Your task to perform on an android device: Open Yahoo.com Image 0: 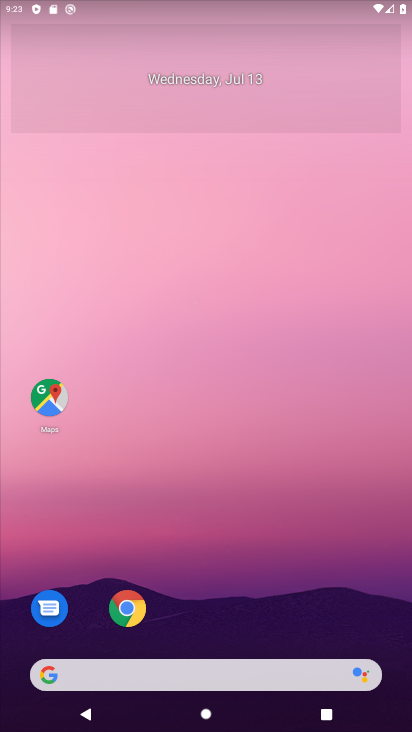
Step 0: click (149, 669)
Your task to perform on an android device: Open Yahoo.com Image 1: 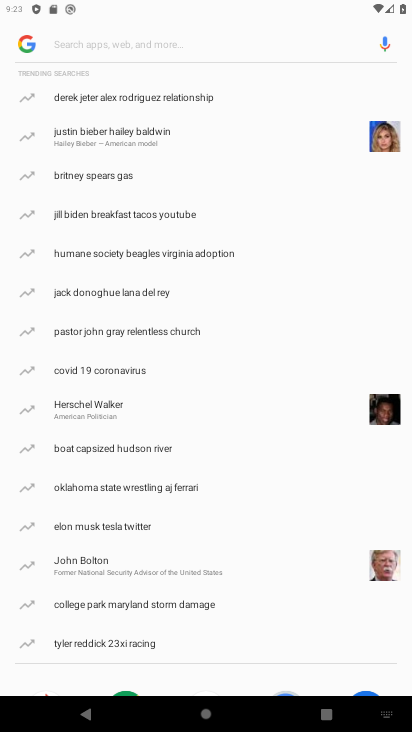
Step 1: type "Yahoo.com"
Your task to perform on an android device: Open Yahoo.com Image 2: 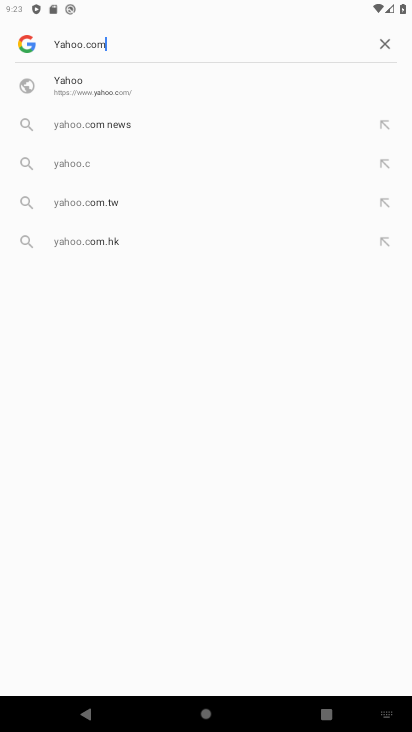
Step 2: type ""
Your task to perform on an android device: Open Yahoo.com Image 3: 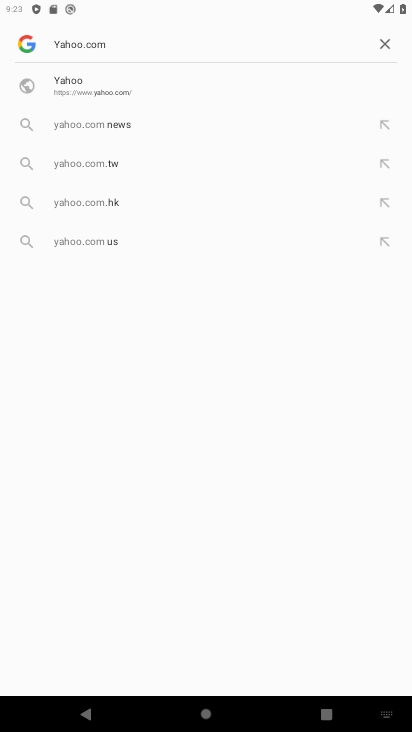
Step 3: click (88, 89)
Your task to perform on an android device: Open Yahoo.com Image 4: 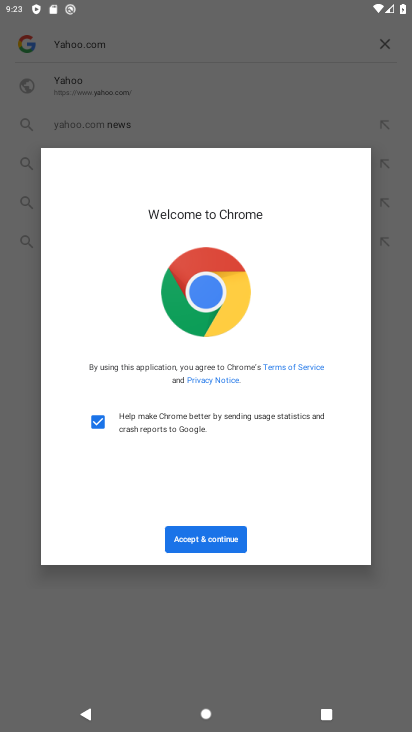
Step 4: click (181, 538)
Your task to perform on an android device: Open Yahoo.com Image 5: 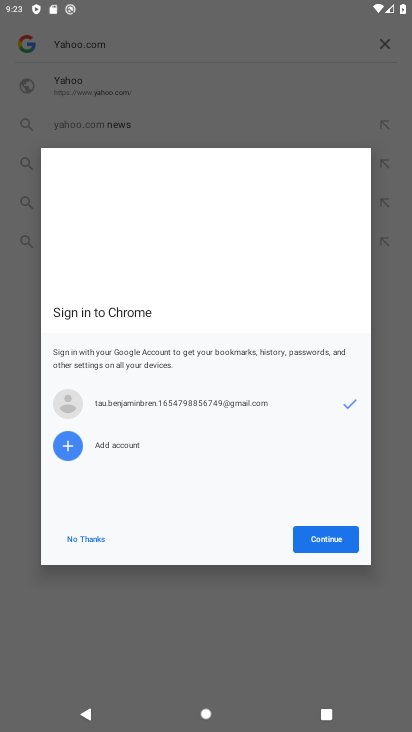
Step 5: click (330, 532)
Your task to perform on an android device: Open Yahoo.com Image 6: 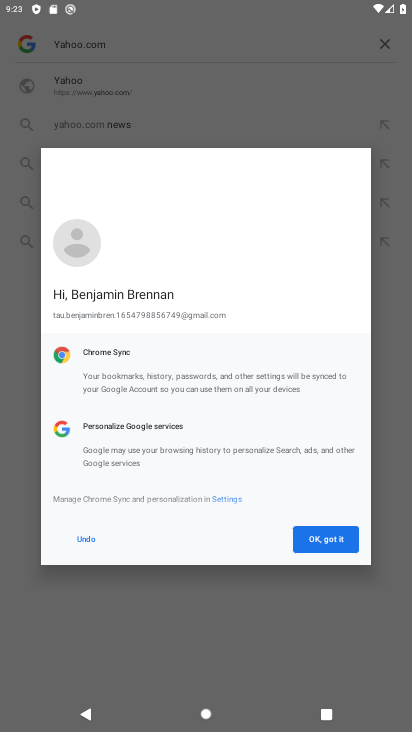
Step 6: click (311, 533)
Your task to perform on an android device: Open Yahoo.com Image 7: 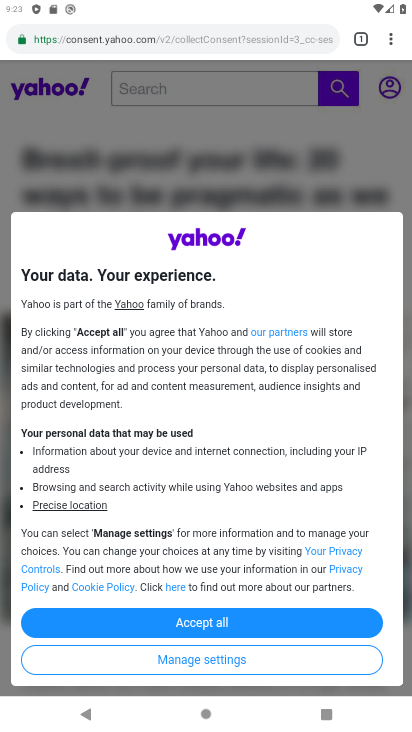
Step 7: task complete